Your task to perform on an android device: Open notification settings Image 0: 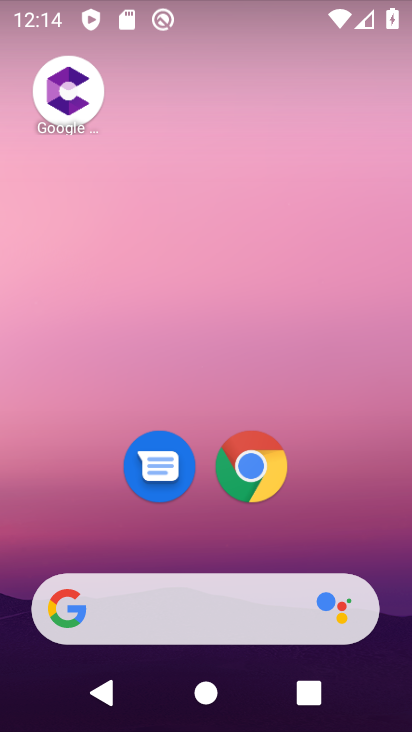
Step 0: drag from (245, 551) to (202, 92)
Your task to perform on an android device: Open notification settings Image 1: 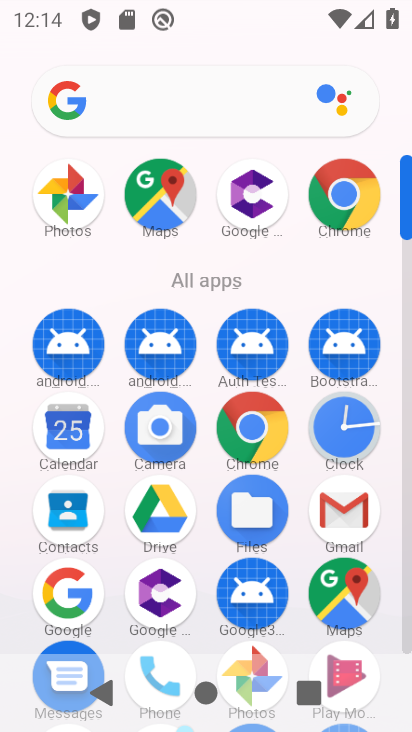
Step 1: click (401, 554)
Your task to perform on an android device: Open notification settings Image 2: 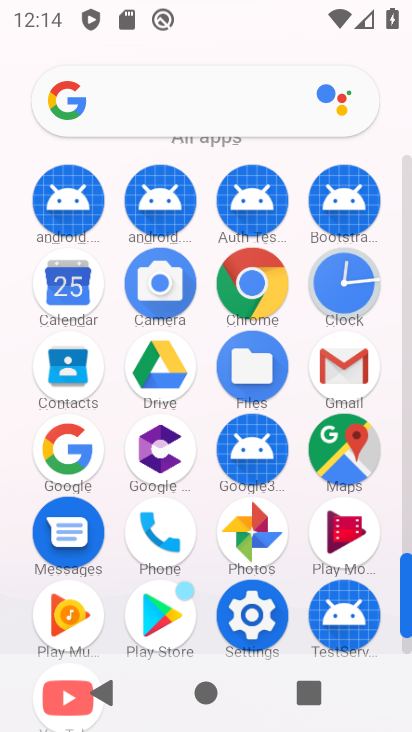
Step 2: click (409, 553)
Your task to perform on an android device: Open notification settings Image 3: 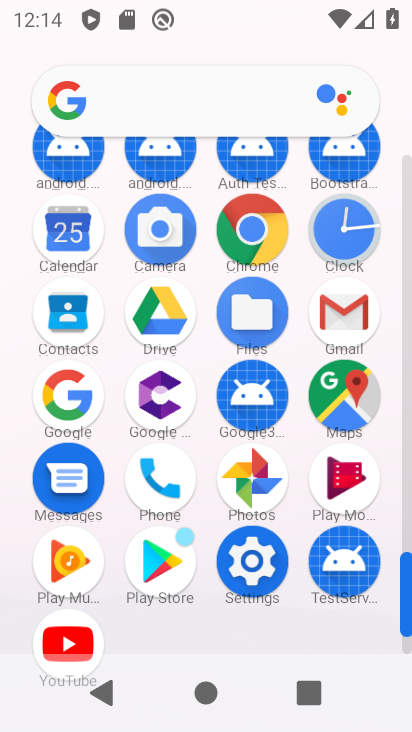
Step 3: click (265, 594)
Your task to perform on an android device: Open notification settings Image 4: 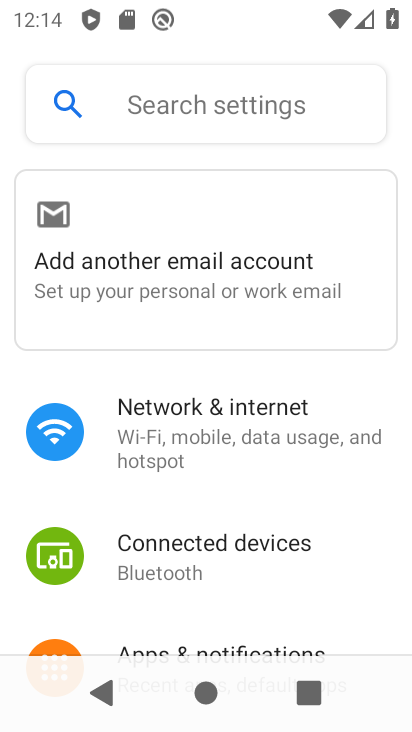
Step 4: drag from (155, 579) to (167, 455)
Your task to perform on an android device: Open notification settings Image 5: 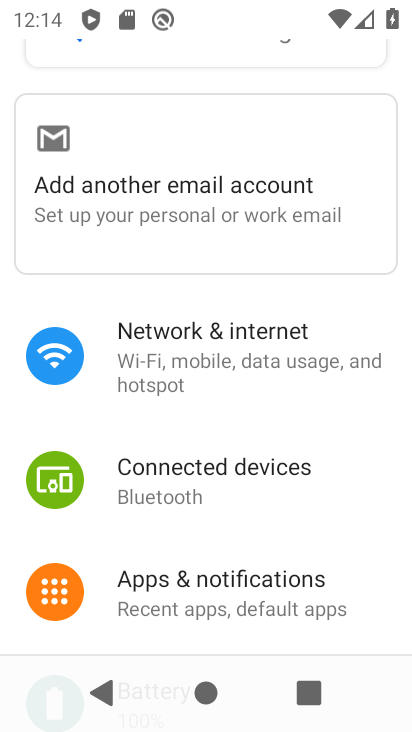
Step 5: click (175, 577)
Your task to perform on an android device: Open notification settings Image 6: 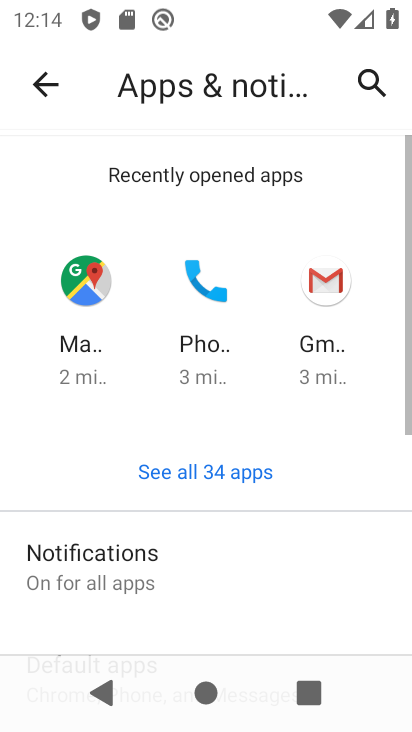
Step 6: task complete